Your task to perform on an android device: Open eBay Image 0: 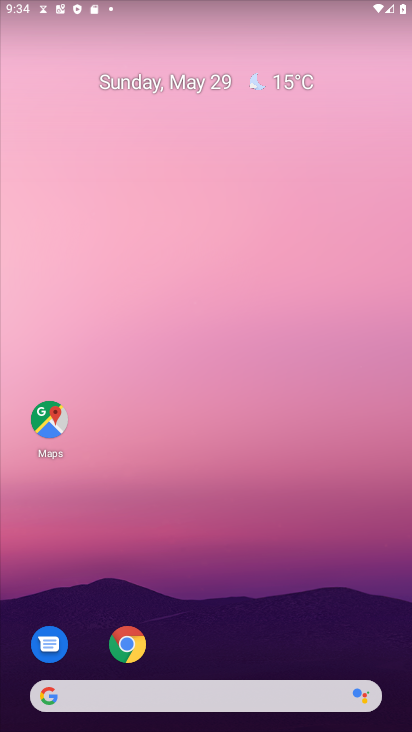
Step 0: click (143, 651)
Your task to perform on an android device: Open eBay Image 1: 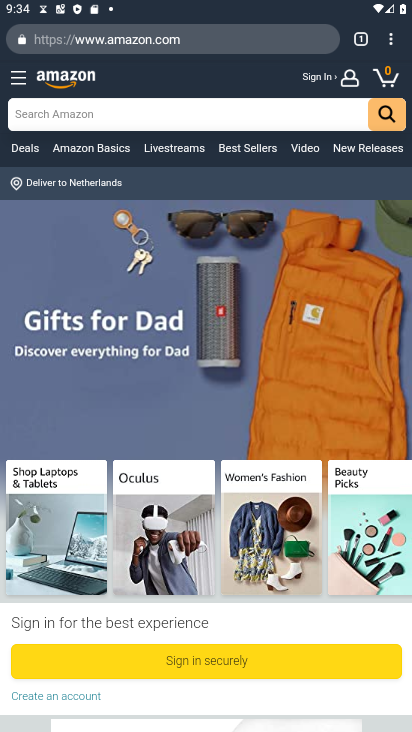
Step 1: click (191, 44)
Your task to perform on an android device: Open eBay Image 2: 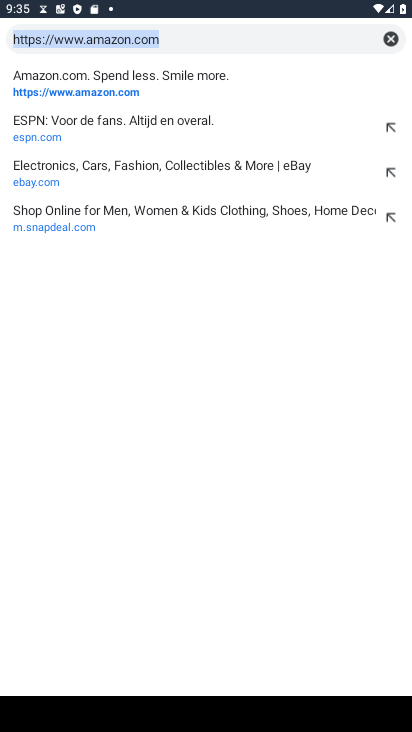
Step 2: type "ebay"
Your task to perform on an android device: Open eBay Image 3: 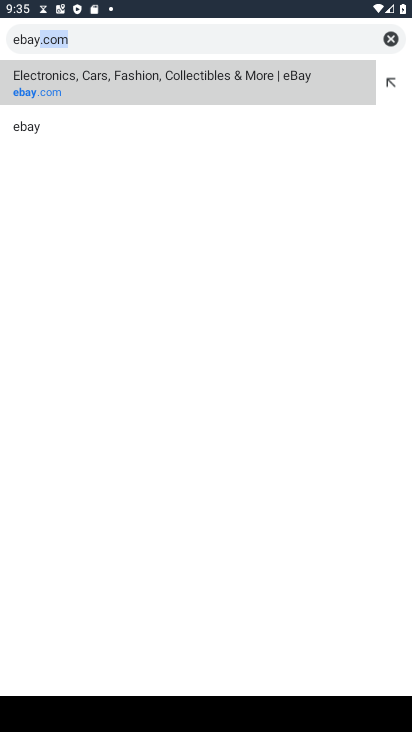
Step 3: click (158, 86)
Your task to perform on an android device: Open eBay Image 4: 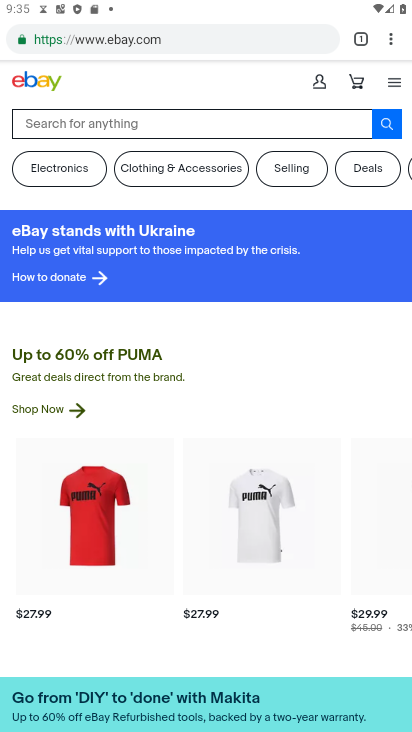
Step 4: task complete